Your task to perform on an android device: Open settings Image 0: 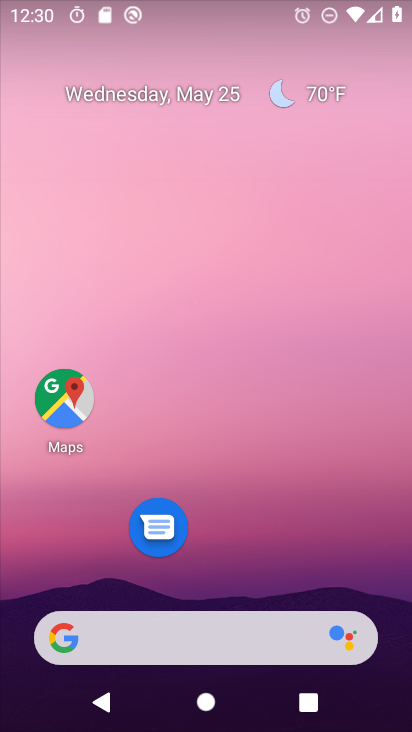
Step 0: drag from (220, 474) to (247, 108)
Your task to perform on an android device: Open settings Image 1: 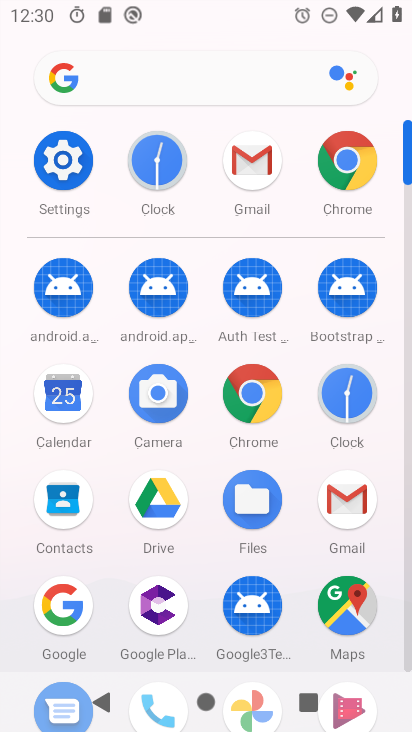
Step 1: click (75, 156)
Your task to perform on an android device: Open settings Image 2: 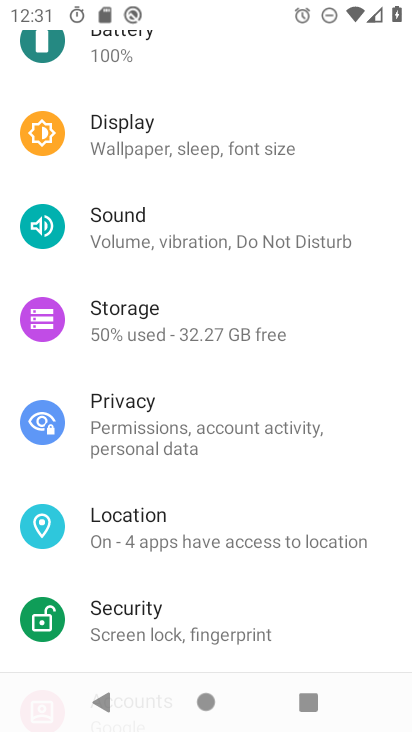
Step 2: task complete